Your task to perform on an android device: Go to CNN.com Image 0: 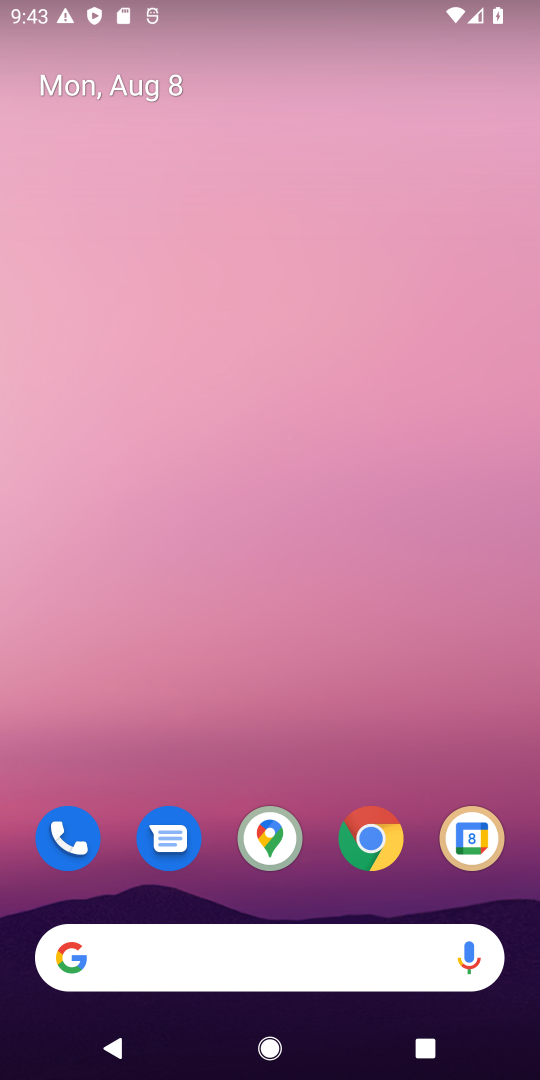
Step 0: press home button
Your task to perform on an android device: Go to CNN.com Image 1: 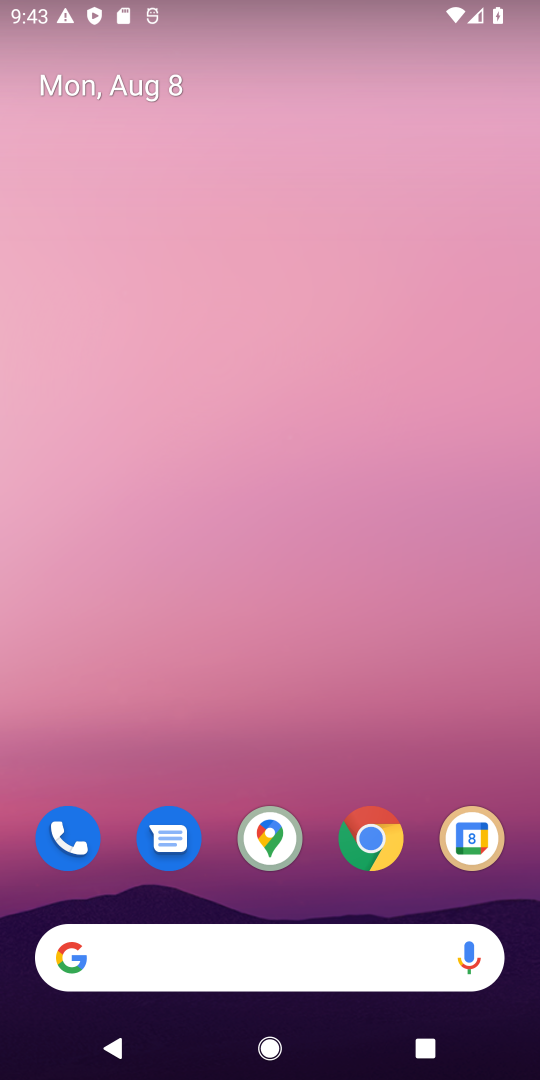
Step 1: click (72, 964)
Your task to perform on an android device: Go to CNN.com Image 2: 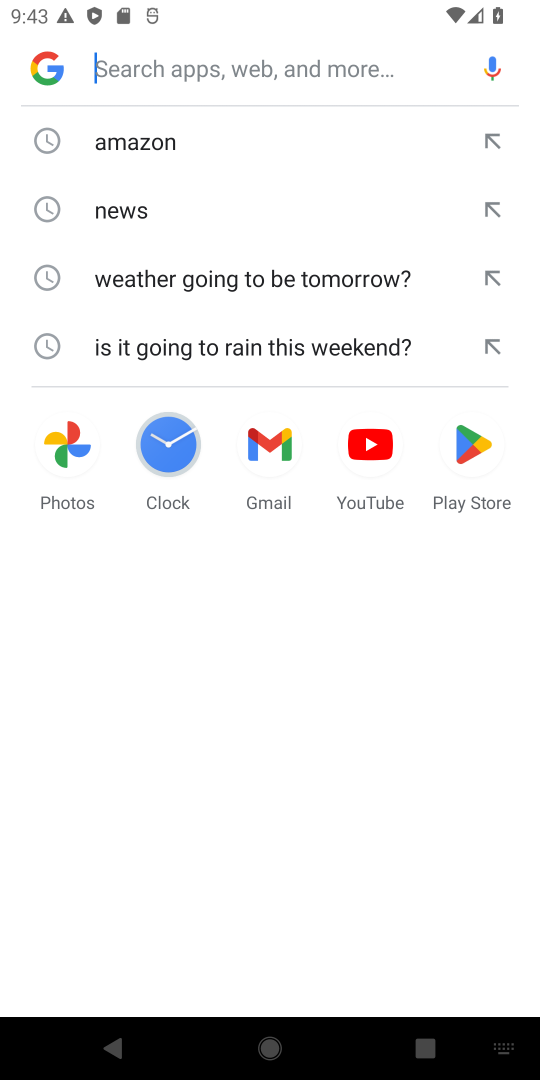
Step 2: type "CNN.com"
Your task to perform on an android device: Go to CNN.com Image 3: 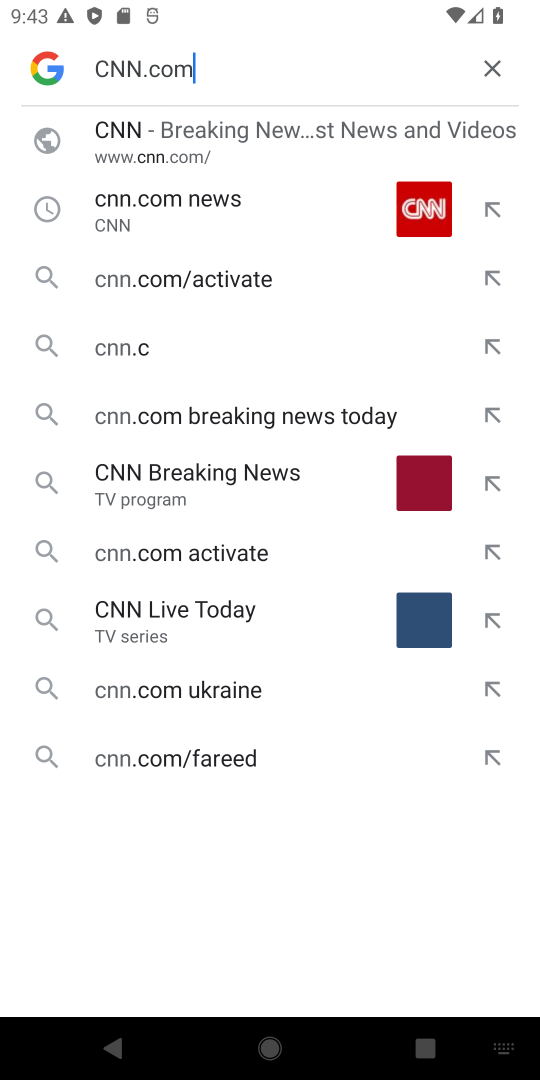
Step 3: press enter
Your task to perform on an android device: Go to CNN.com Image 4: 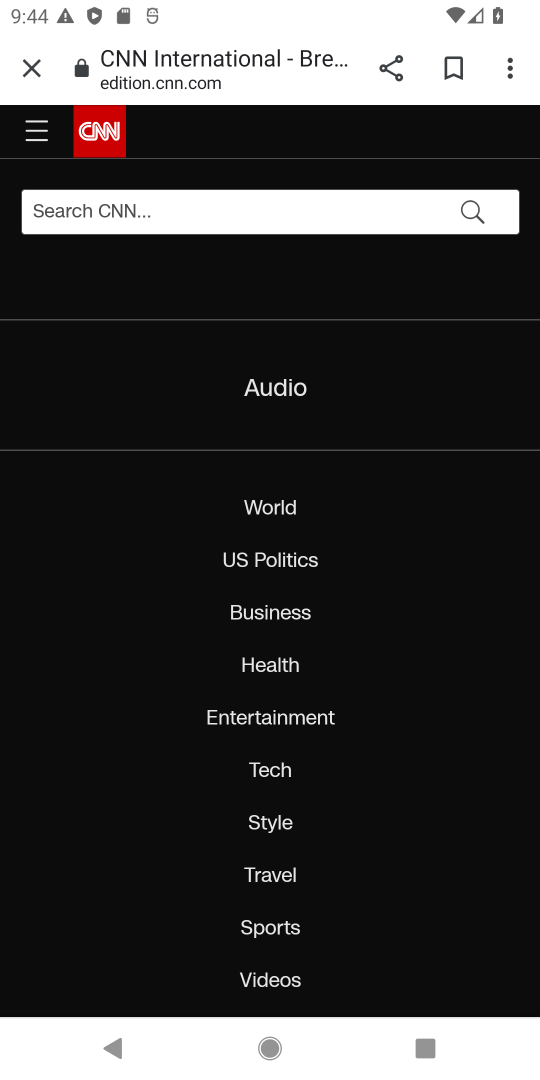
Step 4: task complete